Your task to perform on an android device: turn off sleep mode Image 0: 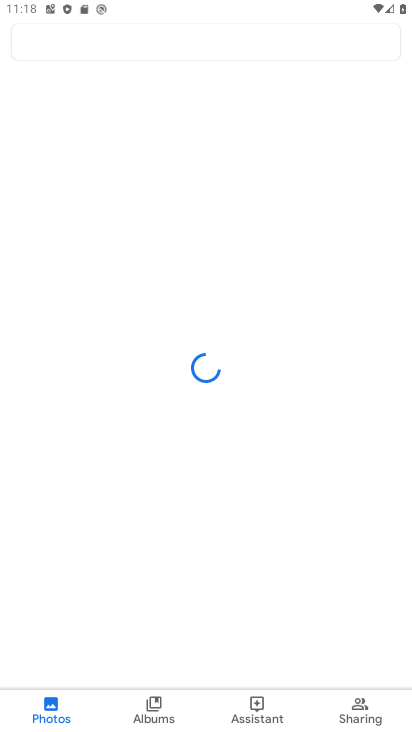
Step 0: drag from (243, 510) to (377, 10)
Your task to perform on an android device: turn off sleep mode Image 1: 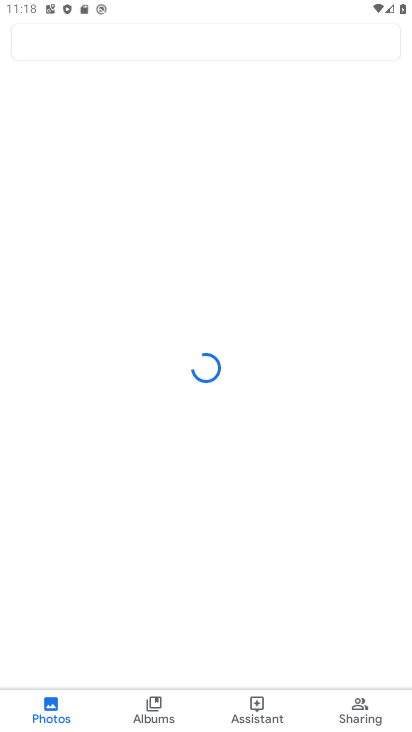
Step 1: drag from (199, 574) to (277, 317)
Your task to perform on an android device: turn off sleep mode Image 2: 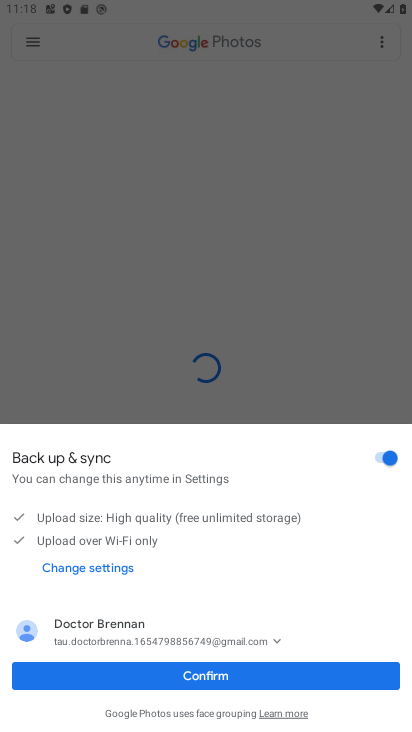
Step 2: press home button
Your task to perform on an android device: turn off sleep mode Image 3: 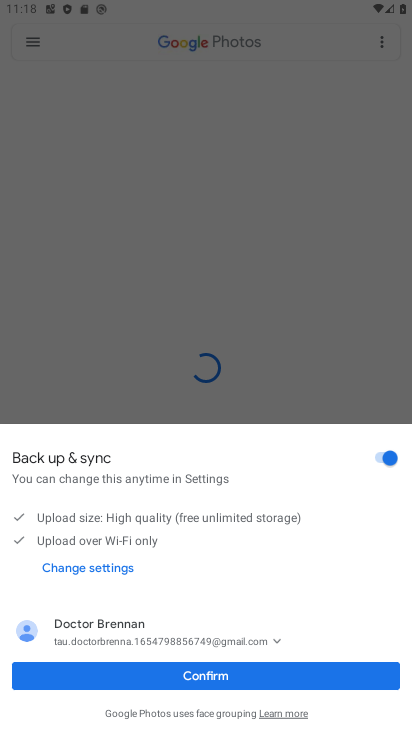
Step 3: click (224, 180)
Your task to perform on an android device: turn off sleep mode Image 4: 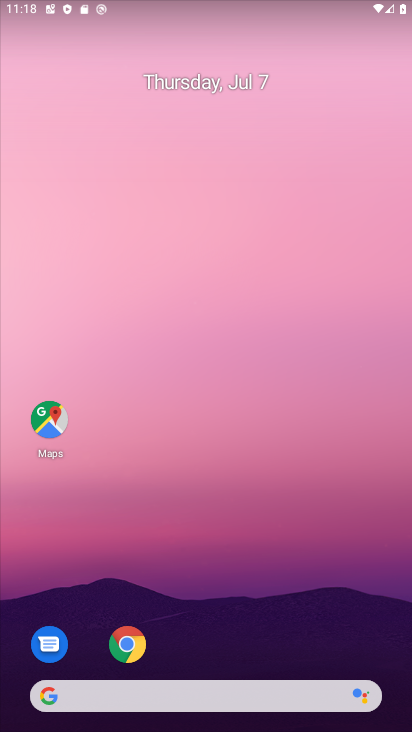
Step 4: drag from (216, 611) to (310, 132)
Your task to perform on an android device: turn off sleep mode Image 5: 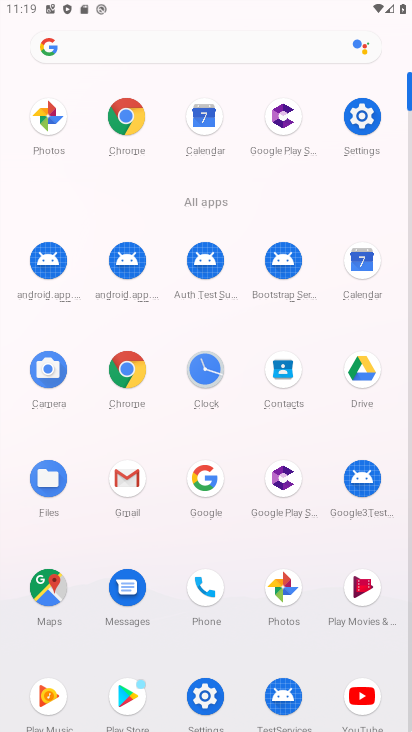
Step 5: click (351, 119)
Your task to perform on an android device: turn off sleep mode Image 6: 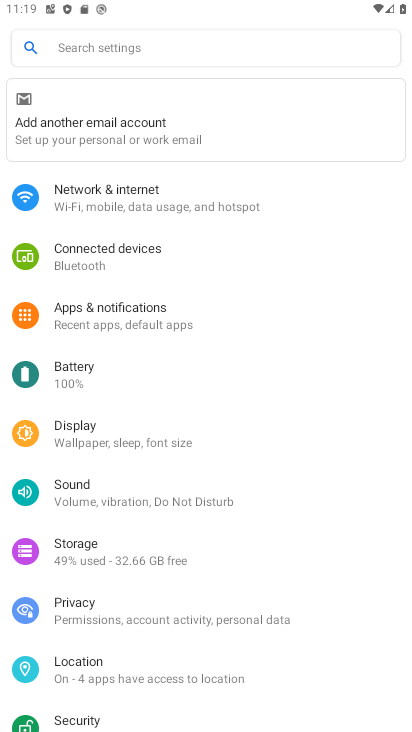
Step 6: click (63, 426)
Your task to perform on an android device: turn off sleep mode Image 7: 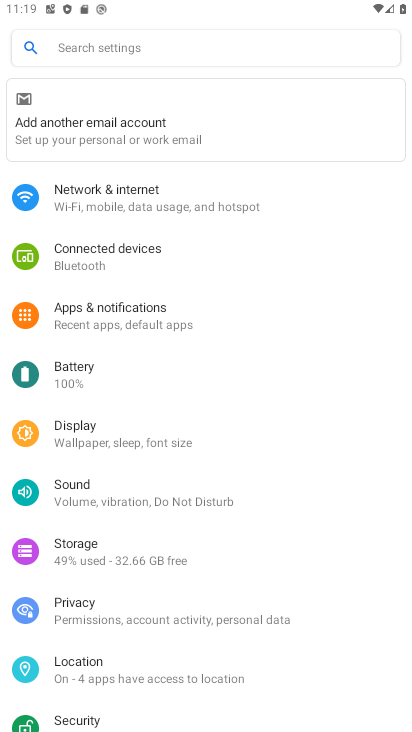
Step 7: click (63, 426)
Your task to perform on an android device: turn off sleep mode Image 8: 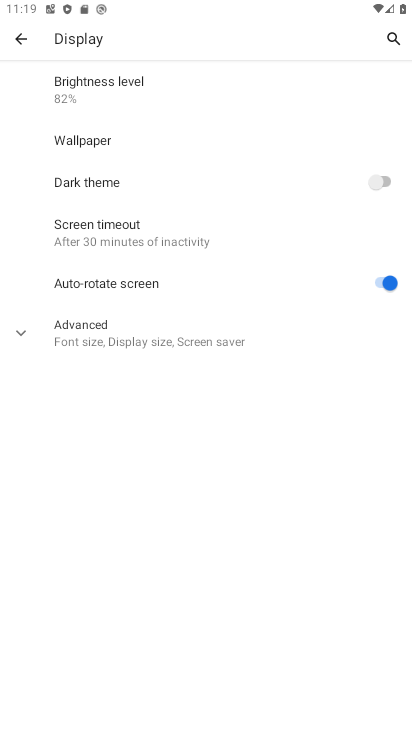
Step 8: click (136, 233)
Your task to perform on an android device: turn off sleep mode Image 9: 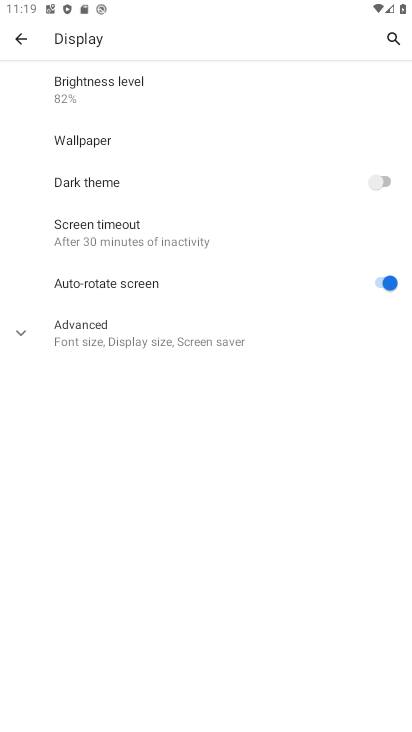
Step 9: click (136, 233)
Your task to perform on an android device: turn off sleep mode Image 10: 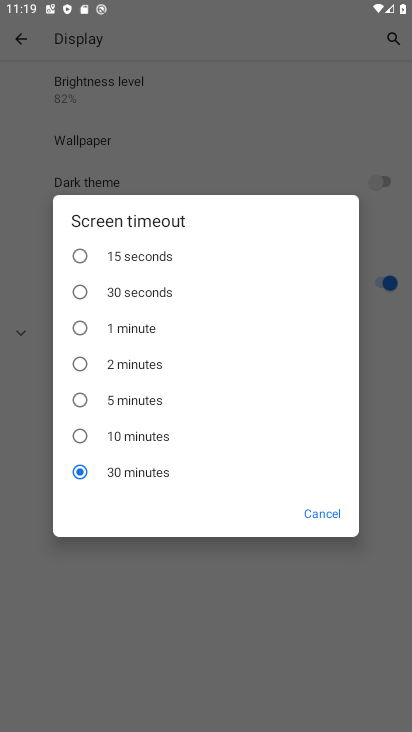
Step 10: drag from (134, 410) to (167, 200)
Your task to perform on an android device: turn off sleep mode Image 11: 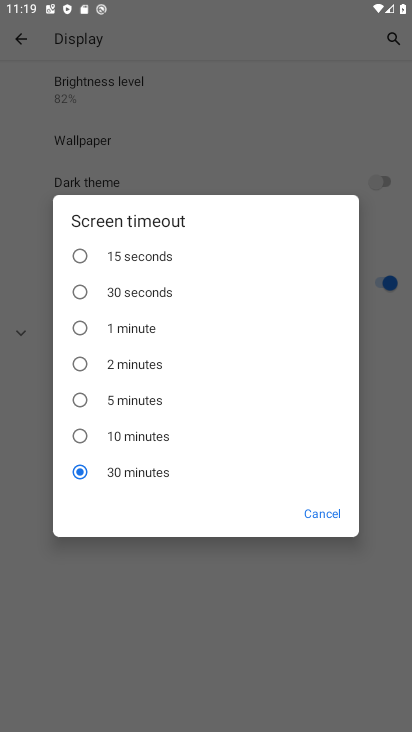
Step 11: click (101, 478)
Your task to perform on an android device: turn off sleep mode Image 12: 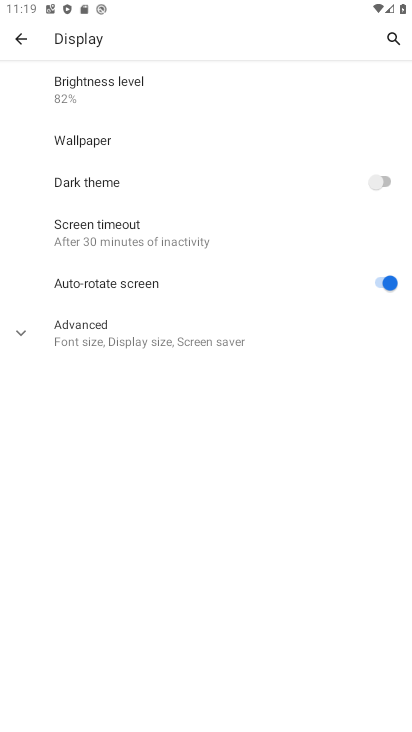
Step 12: task complete